Your task to perform on an android device: What's the weather going to be tomorrow? Image 0: 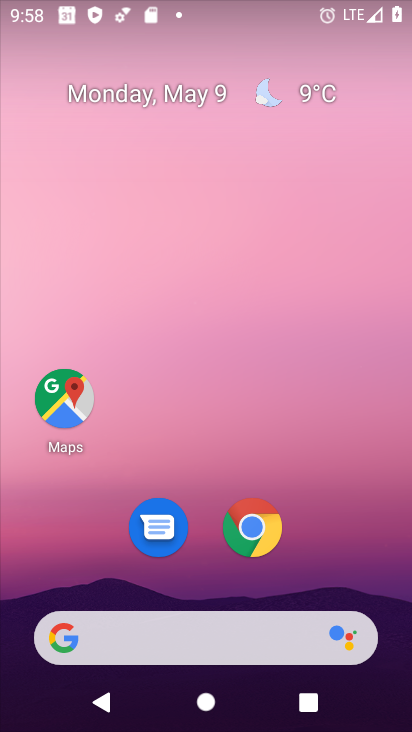
Step 0: click (308, 85)
Your task to perform on an android device: What's the weather going to be tomorrow? Image 1: 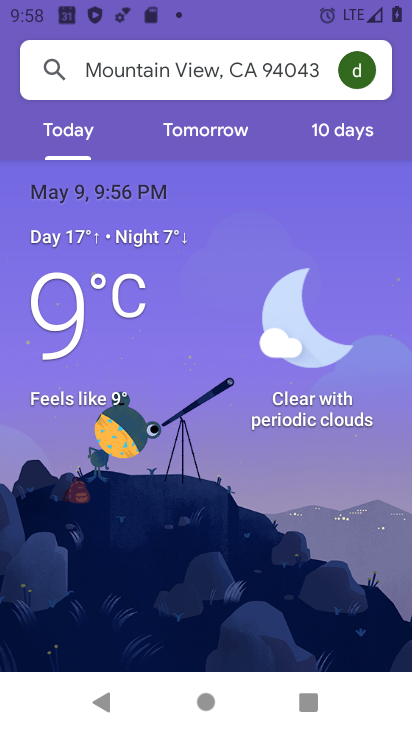
Step 1: click (212, 122)
Your task to perform on an android device: What's the weather going to be tomorrow? Image 2: 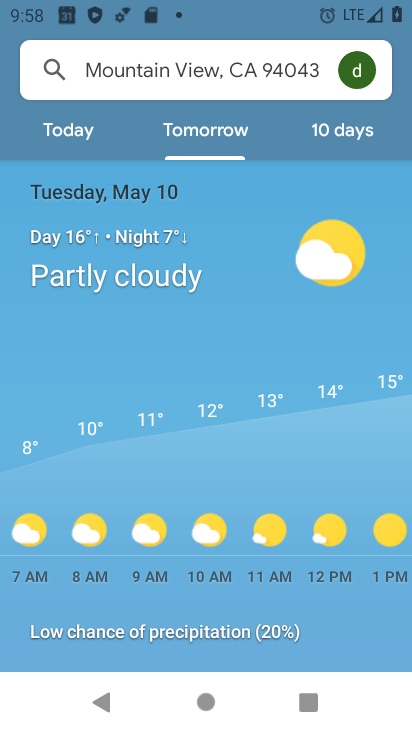
Step 2: task complete